Your task to perform on an android device: see tabs open on other devices in the chrome app Image 0: 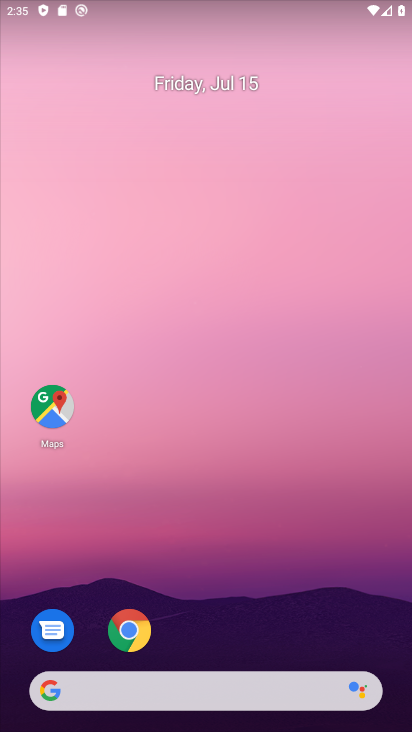
Step 0: click (131, 637)
Your task to perform on an android device: see tabs open on other devices in the chrome app Image 1: 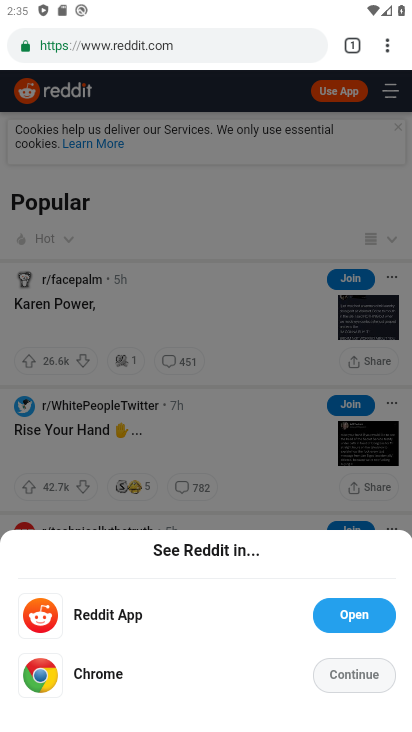
Step 1: click (379, 40)
Your task to perform on an android device: see tabs open on other devices in the chrome app Image 2: 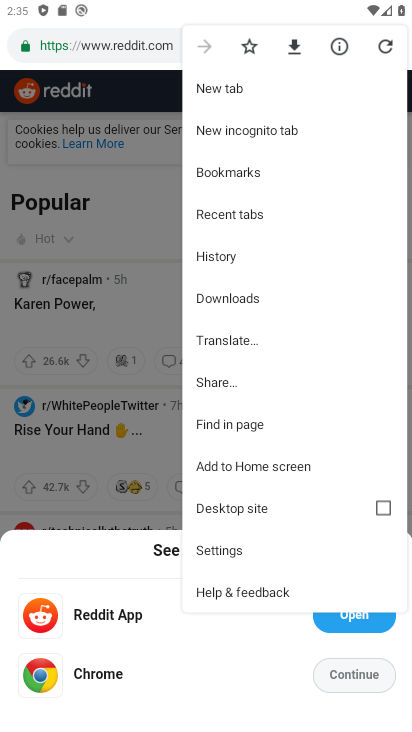
Step 2: click (212, 215)
Your task to perform on an android device: see tabs open on other devices in the chrome app Image 3: 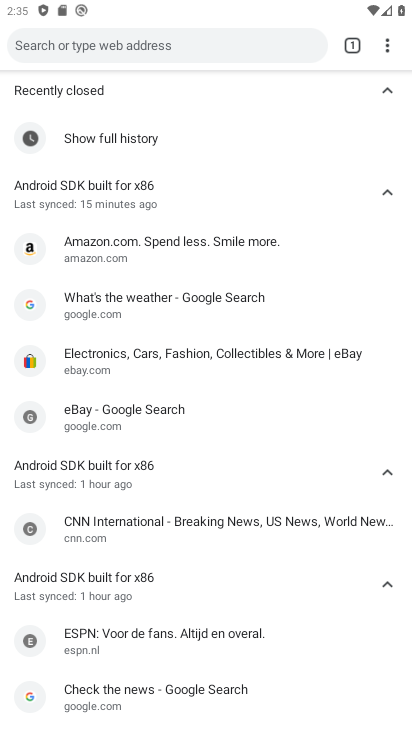
Step 3: task complete